Your task to perform on an android device: toggle priority inbox in the gmail app Image 0: 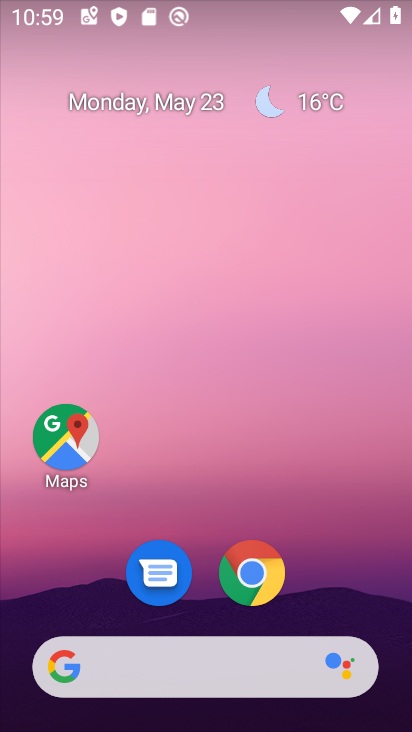
Step 0: drag from (359, 602) to (226, 21)
Your task to perform on an android device: toggle priority inbox in the gmail app Image 1: 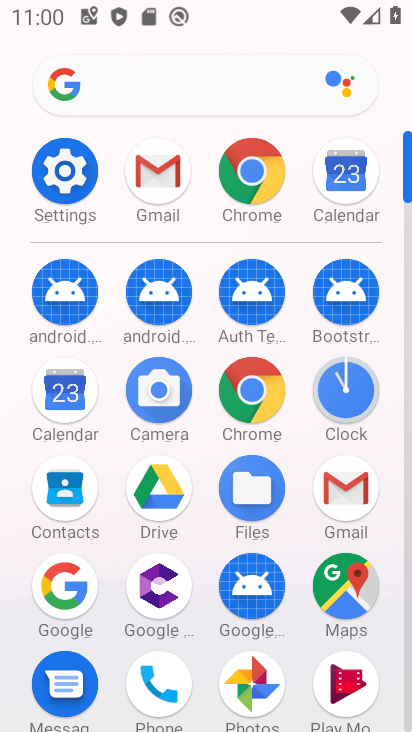
Step 1: drag from (25, 455) to (16, 158)
Your task to perform on an android device: toggle priority inbox in the gmail app Image 2: 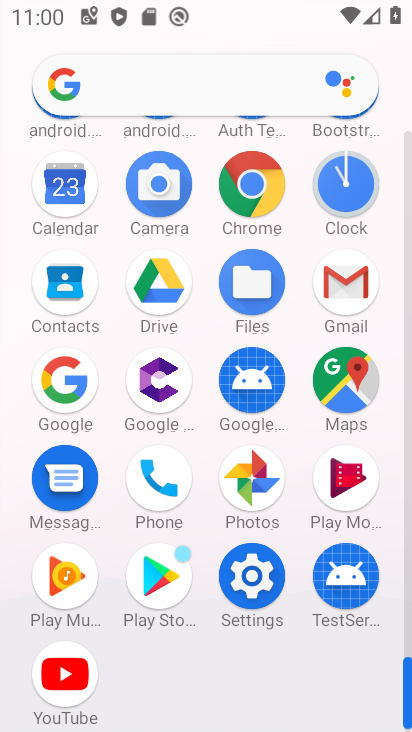
Step 2: click (348, 273)
Your task to perform on an android device: toggle priority inbox in the gmail app Image 3: 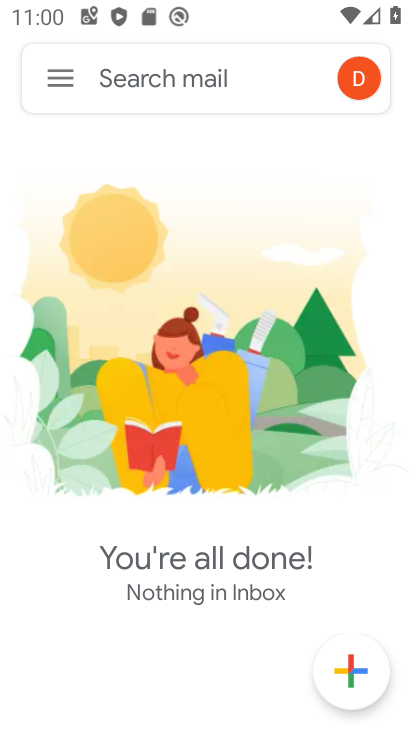
Step 3: click (61, 80)
Your task to perform on an android device: toggle priority inbox in the gmail app Image 4: 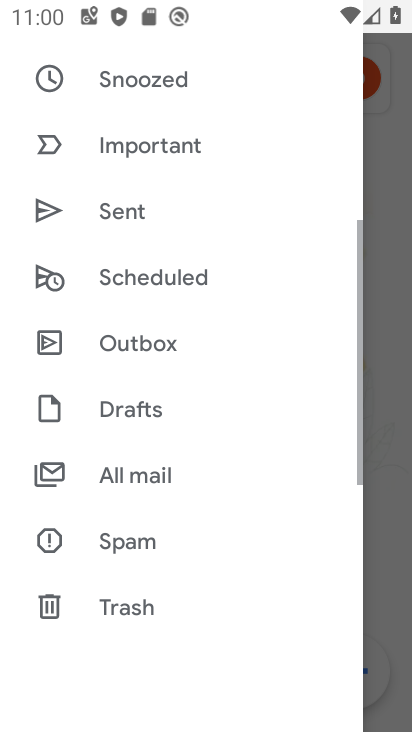
Step 4: drag from (225, 568) to (240, 187)
Your task to perform on an android device: toggle priority inbox in the gmail app Image 5: 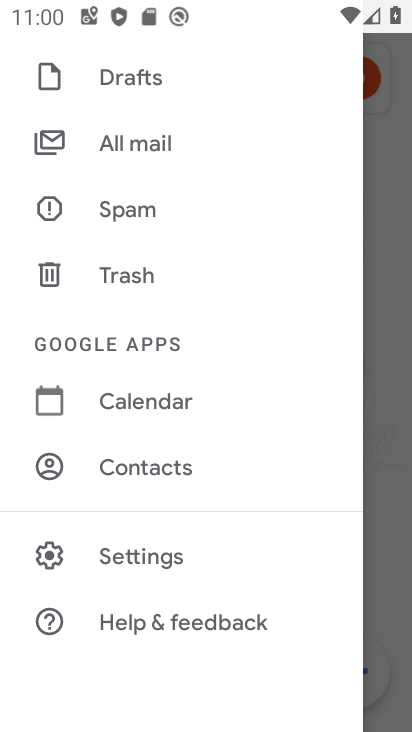
Step 5: click (170, 551)
Your task to perform on an android device: toggle priority inbox in the gmail app Image 6: 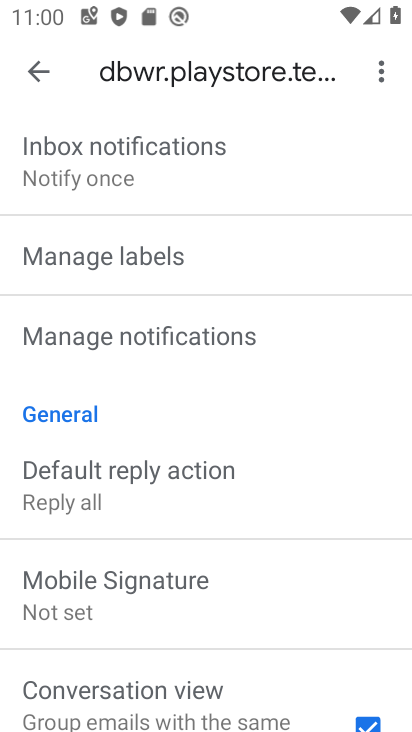
Step 6: drag from (234, 513) to (245, 191)
Your task to perform on an android device: toggle priority inbox in the gmail app Image 7: 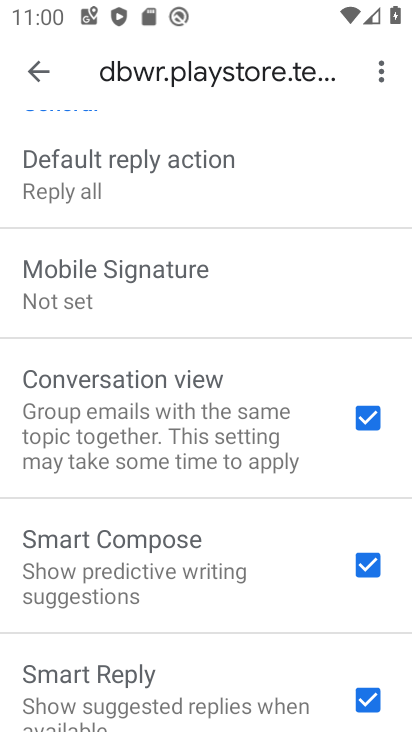
Step 7: drag from (227, 625) to (239, 227)
Your task to perform on an android device: toggle priority inbox in the gmail app Image 8: 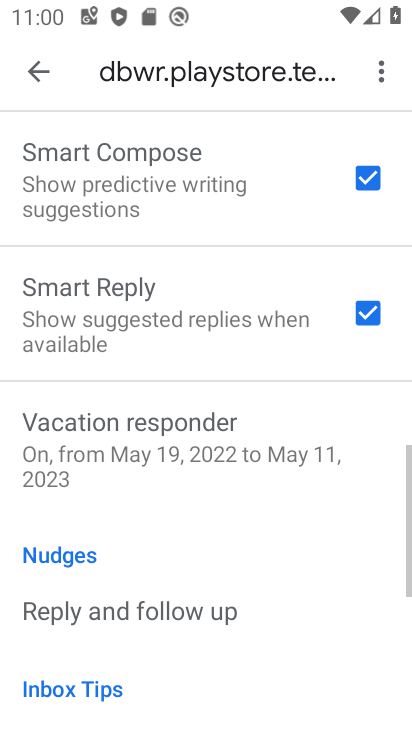
Step 8: drag from (247, 139) to (243, 656)
Your task to perform on an android device: toggle priority inbox in the gmail app Image 9: 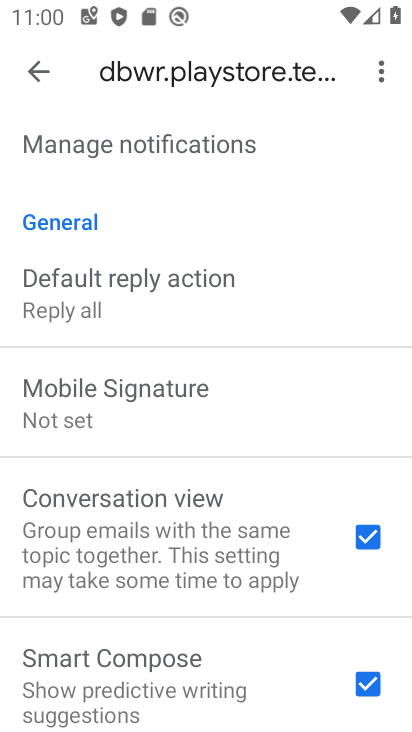
Step 9: drag from (227, 176) to (227, 628)
Your task to perform on an android device: toggle priority inbox in the gmail app Image 10: 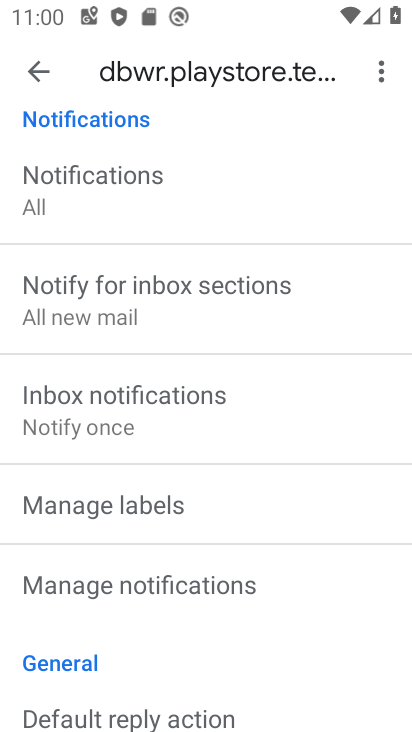
Step 10: drag from (216, 206) to (216, 636)
Your task to perform on an android device: toggle priority inbox in the gmail app Image 11: 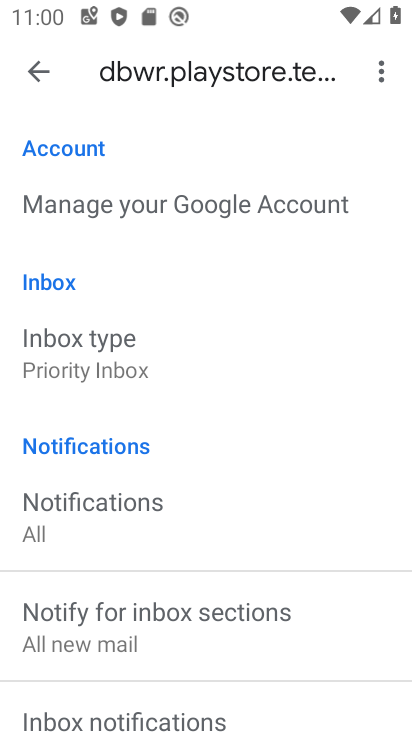
Step 11: click (159, 359)
Your task to perform on an android device: toggle priority inbox in the gmail app Image 12: 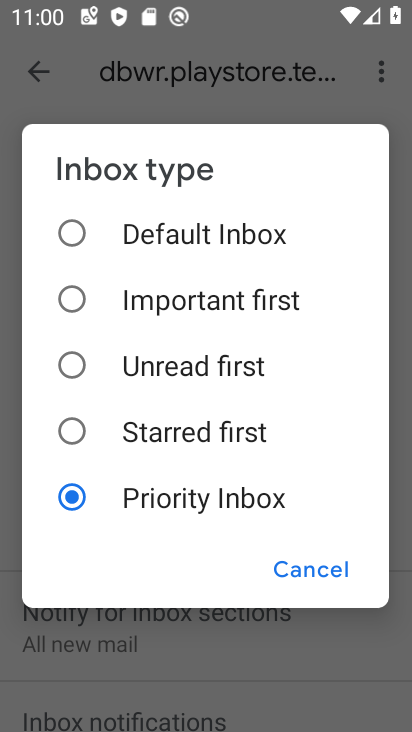
Step 12: click (188, 508)
Your task to perform on an android device: toggle priority inbox in the gmail app Image 13: 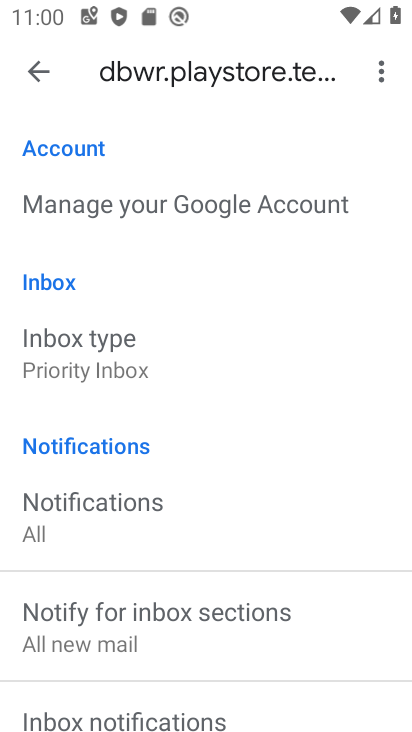
Step 13: task complete